Your task to perform on an android device: Search for flights from Zurich to Buenos aires Image 0: 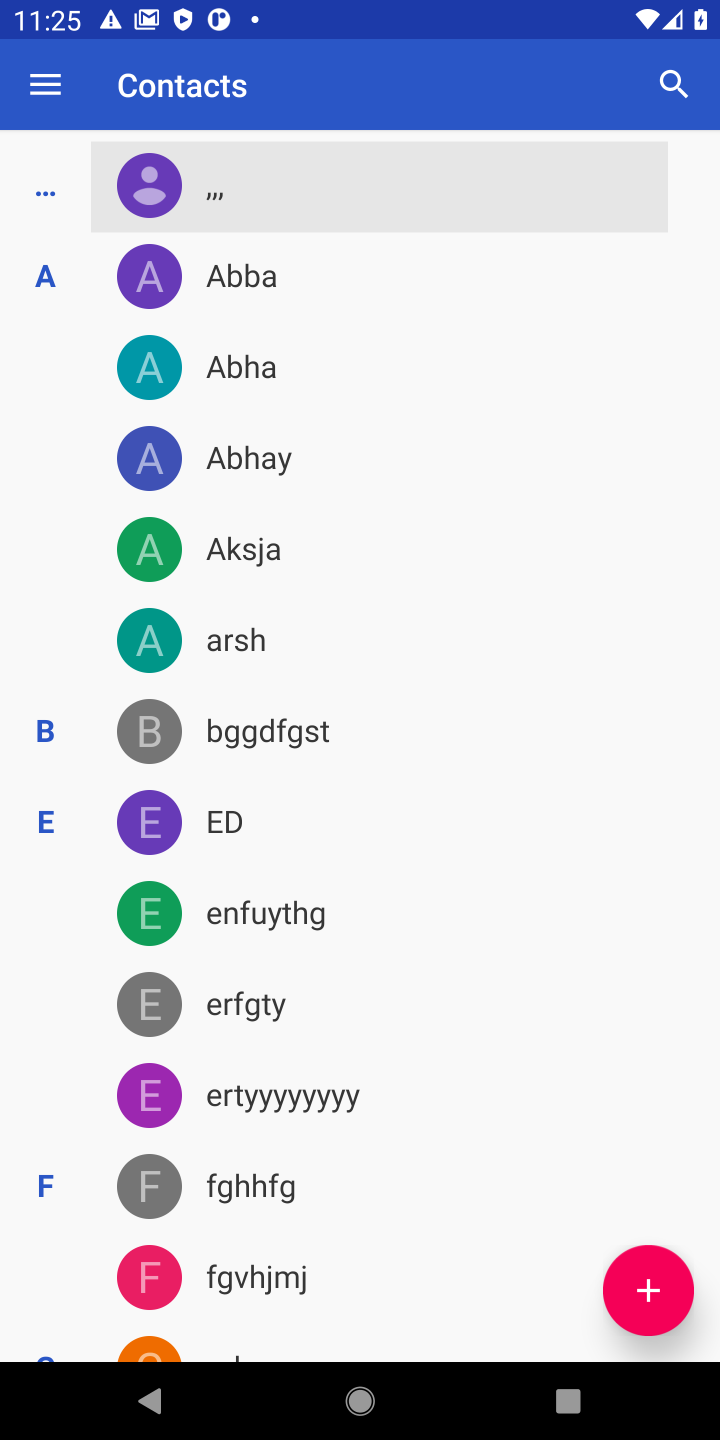
Step 0: press home button
Your task to perform on an android device: Search for flights from Zurich to Buenos aires Image 1: 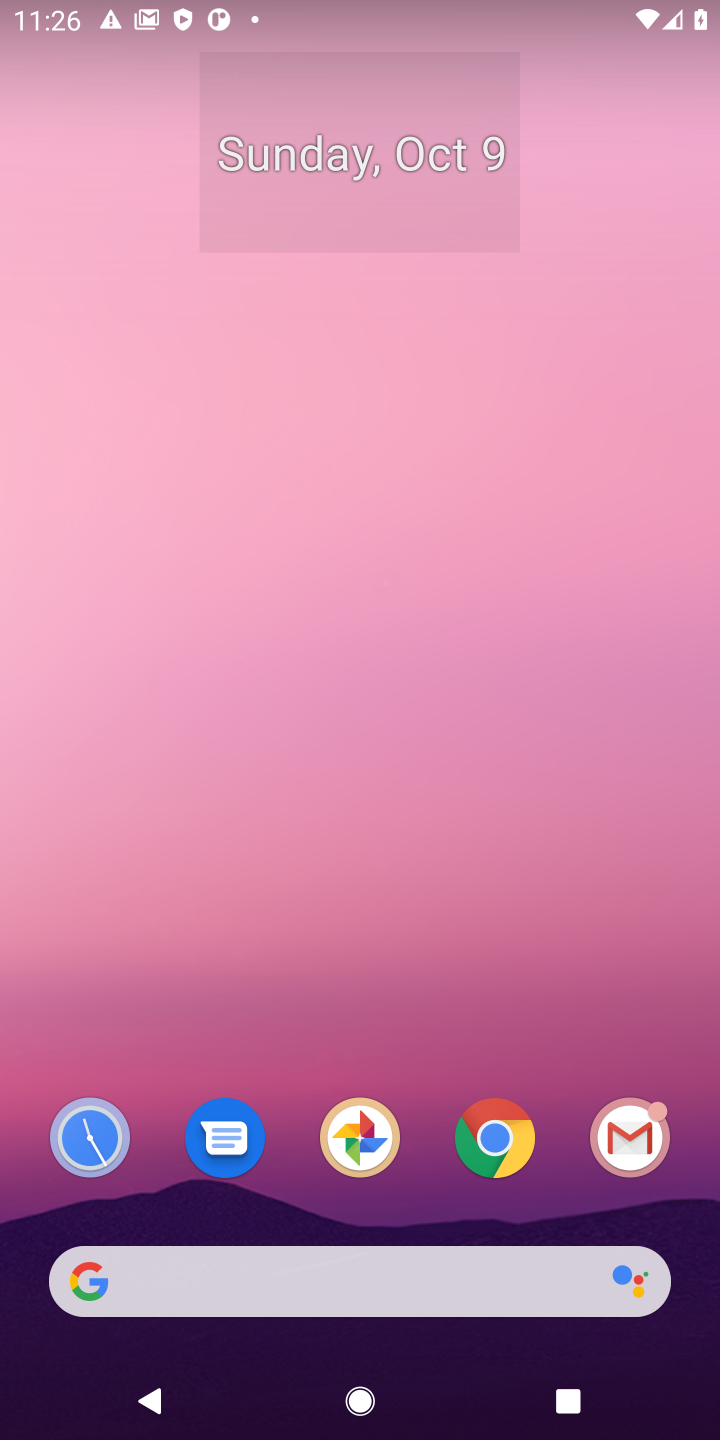
Step 1: click (500, 1149)
Your task to perform on an android device: Search for flights from Zurich to Buenos aires Image 2: 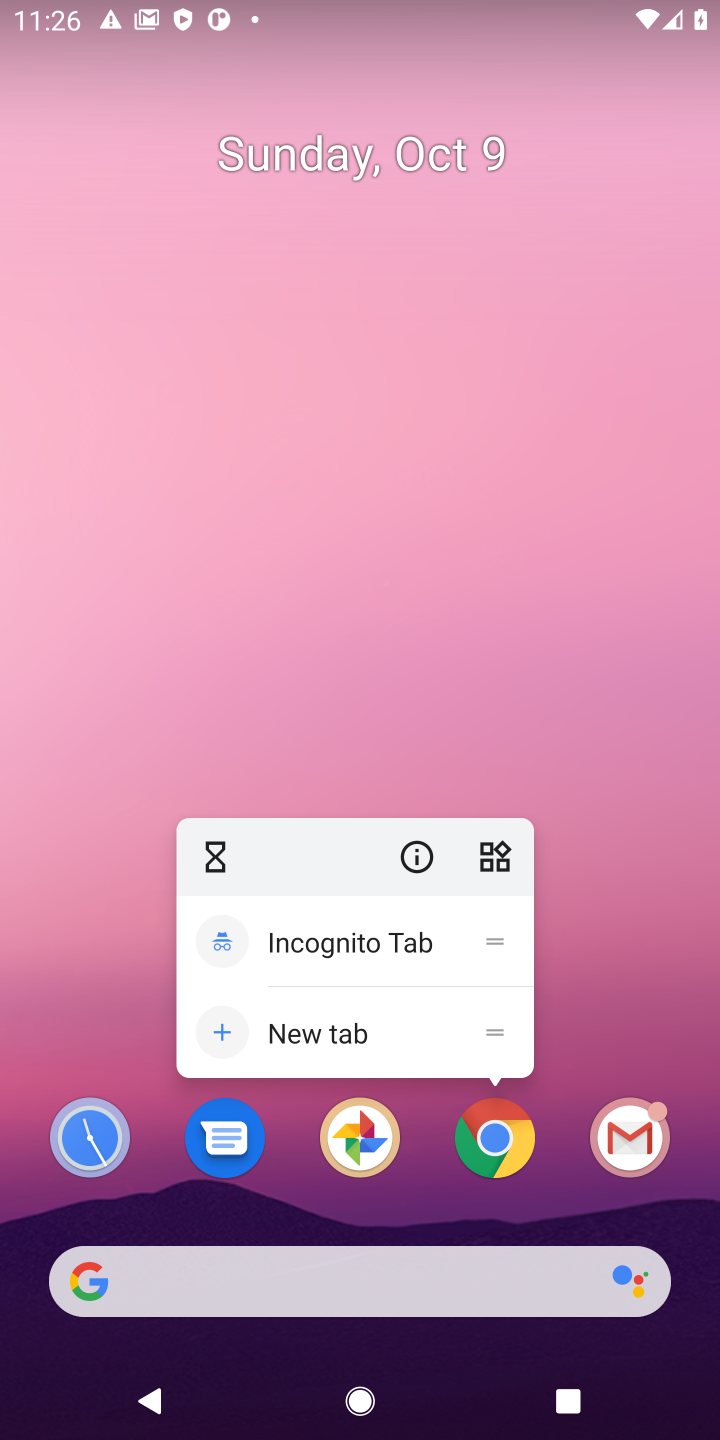
Step 2: click (477, 1149)
Your task to perform on an android device: Search for flights from Zurich to Buenos aires Image 3: 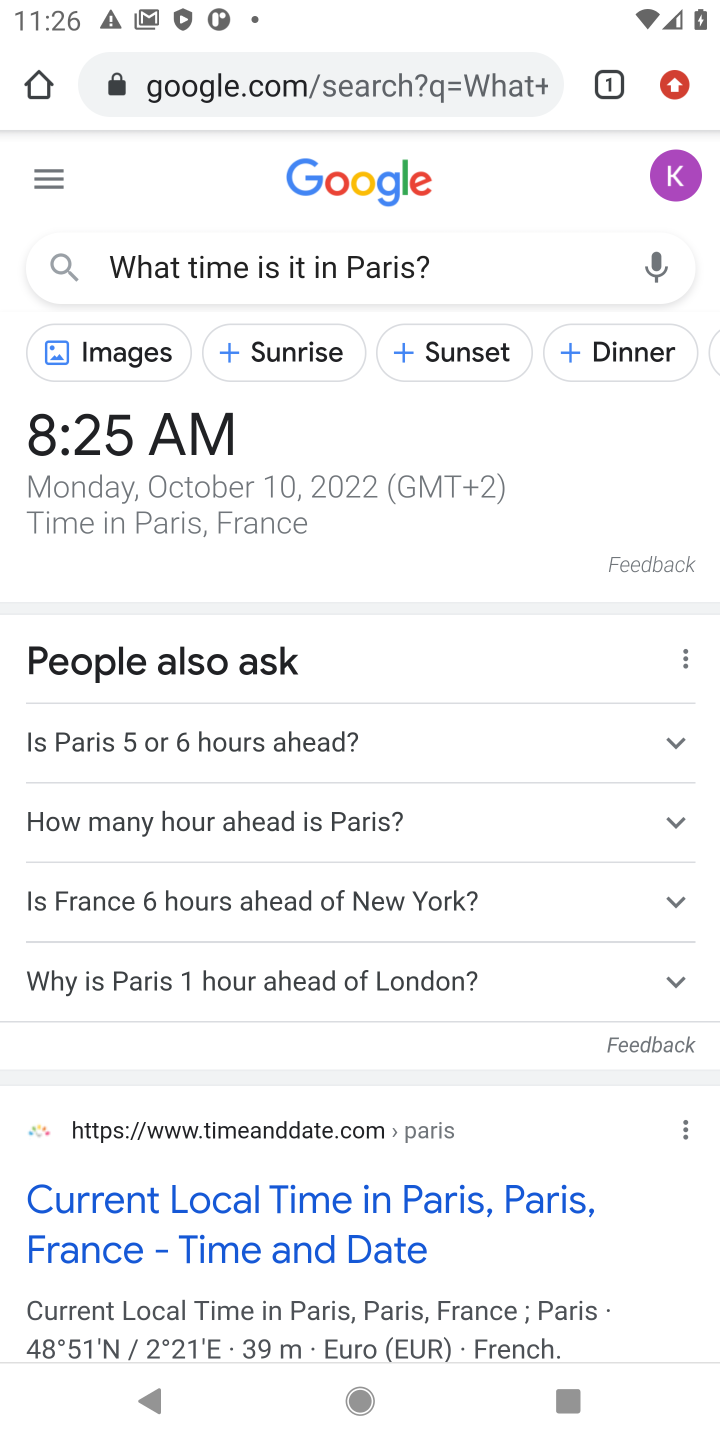
Step 3: click (548, 279)
Your task to perform on an android device: Search for flights from Zurich to Buenos aires Image 4: 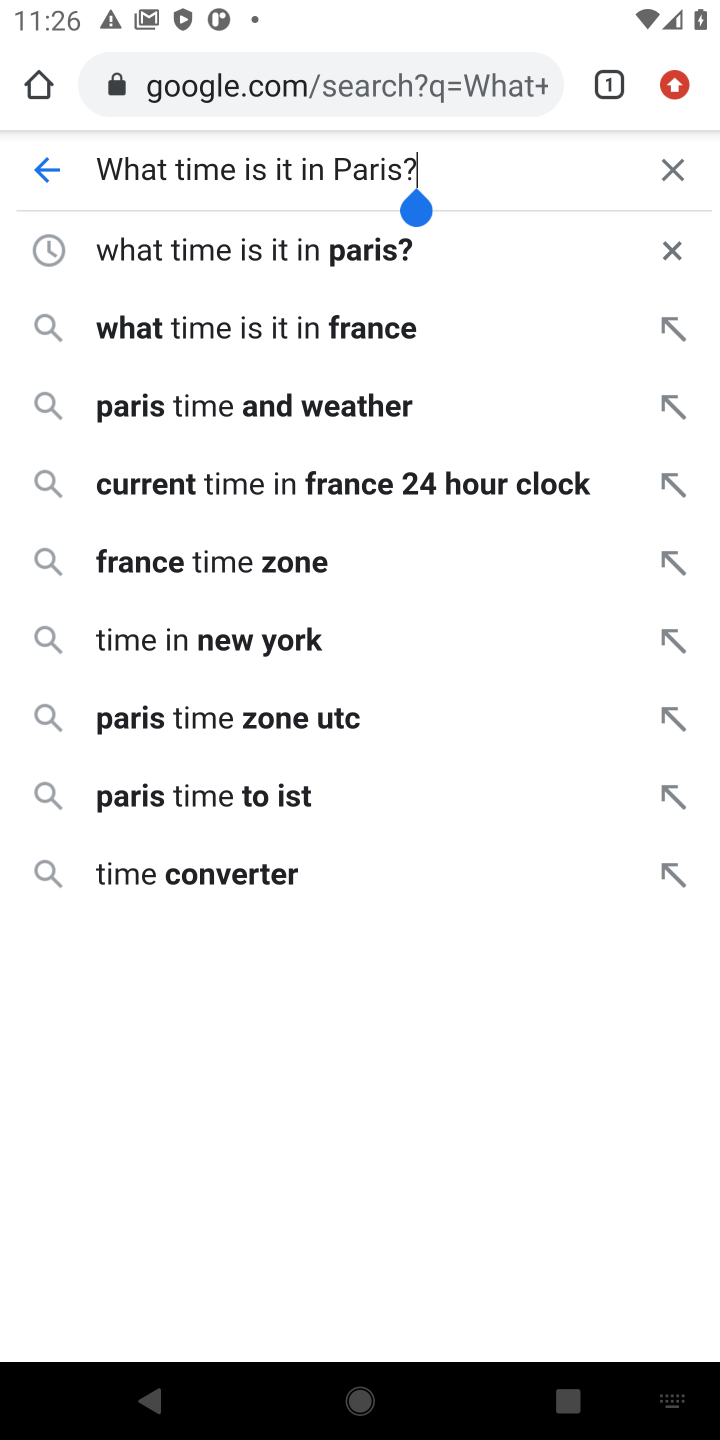
Step 4: click (668, 180)
Your task to perform on an android device: Search for flights from Zurich to Buenos aires Image 5: 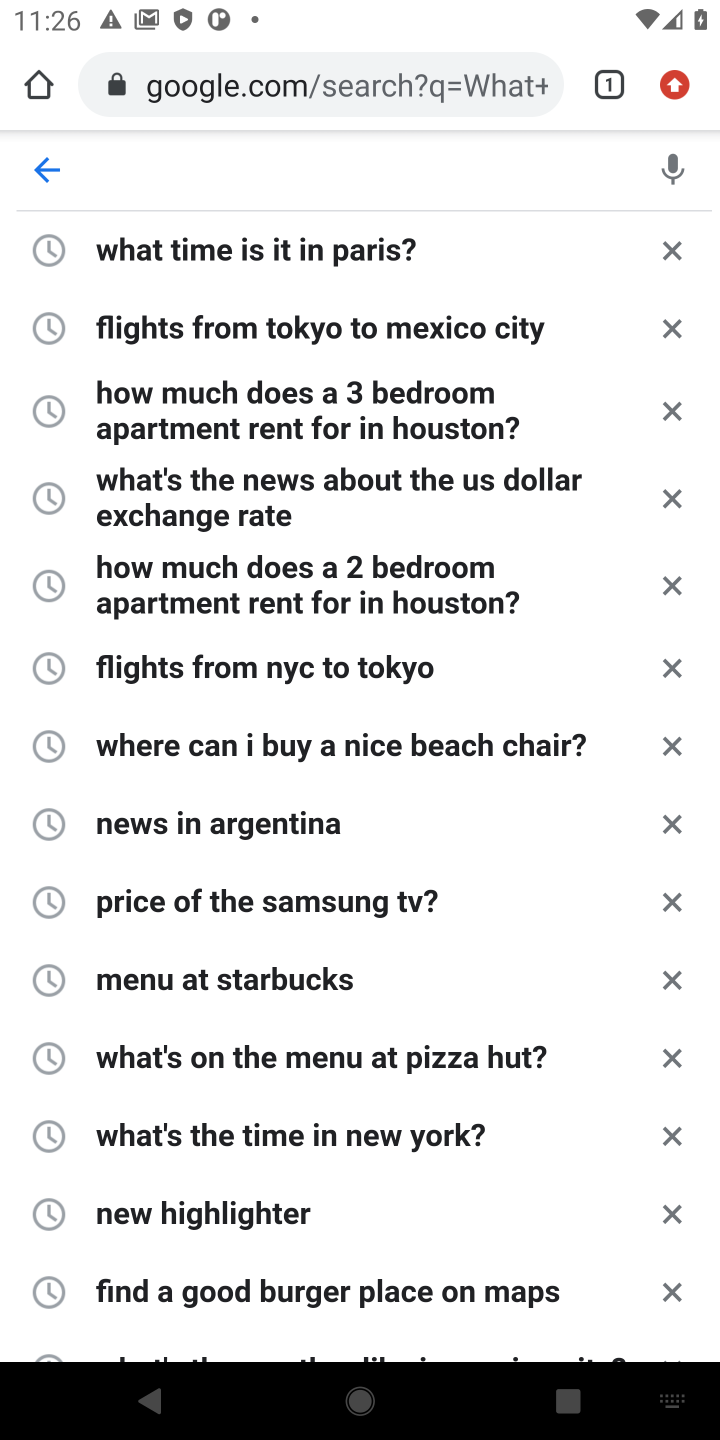
Step 5: type "flights from Zurich to Buenos aires"
Your task to perform on an android device: Search for flights from Zurich to Buenos aires Image 6: 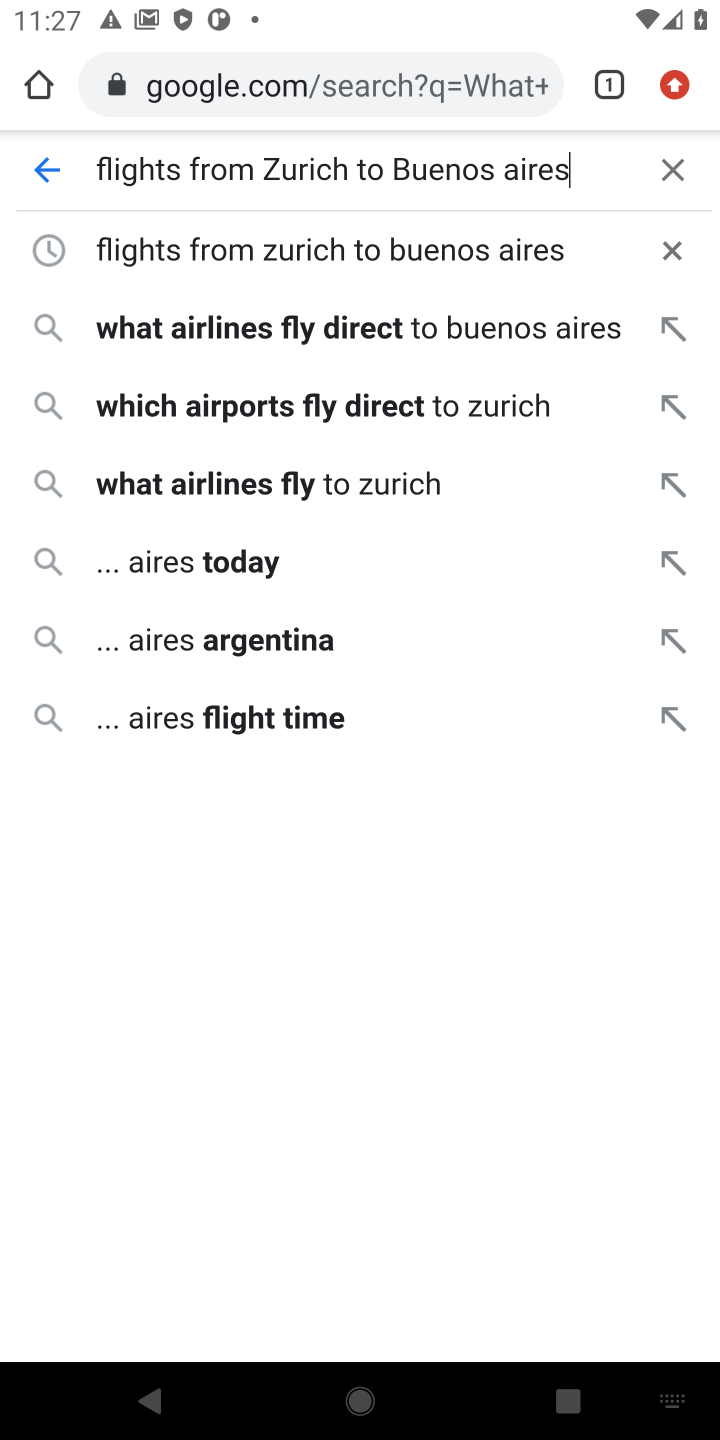
Step 6: press enter
Your task to perform on an android device: Search for flights from Zurich to Buenos aires Image 7: 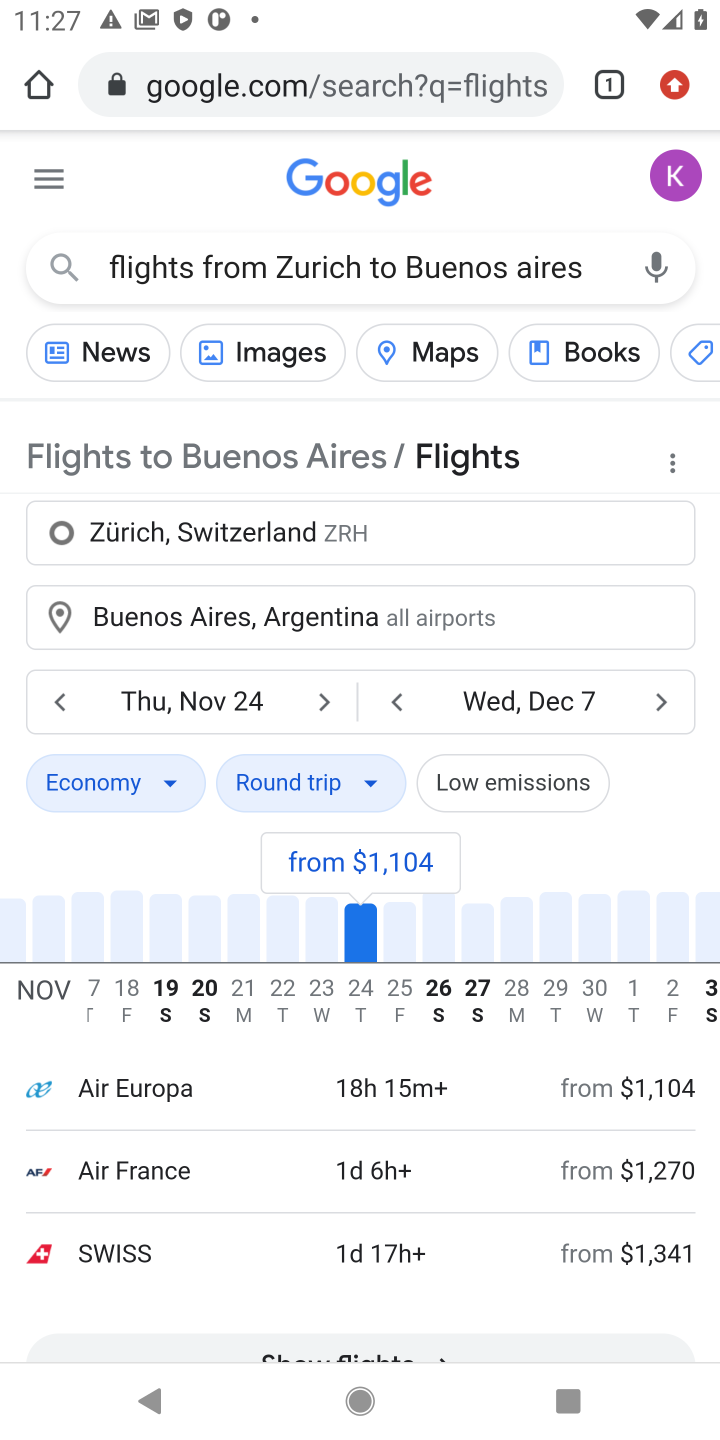
Step 7: task complete